Your task to perform on an android device: Open Youtube and go to "Your channel" Image 0: 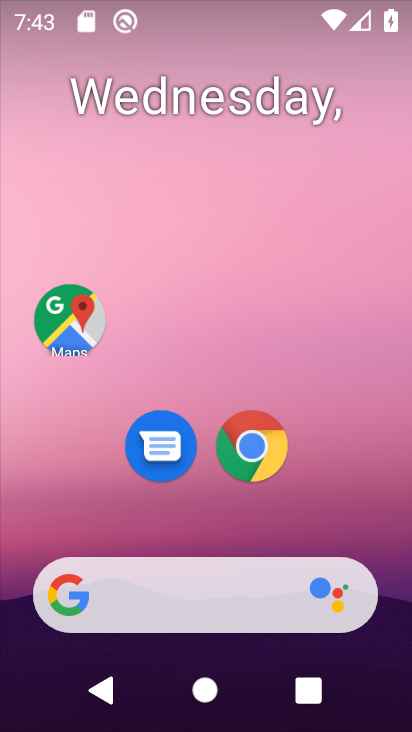
Step 0: press home button
Your task to perform on an android device: Open Youtube and go to "Your channel" Image 1: 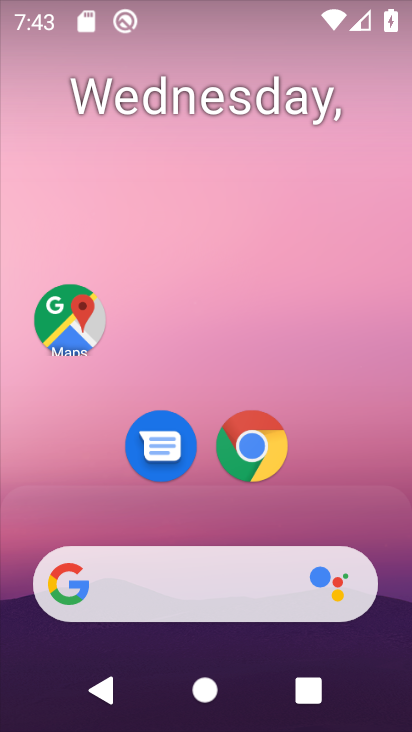
Step 1: drag from (205, 523) to (217, 30)
Your task to perform on an android device: Open Youtube and go to "Your channel" Image 2: 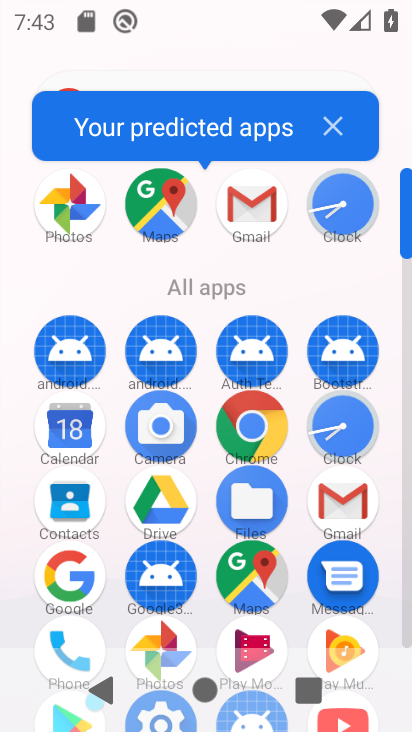
Step 2: drag from (209, 613) to (197, 129)
Your task to perform on an android device: Open Youtube and go to "Your channel" Image 3: 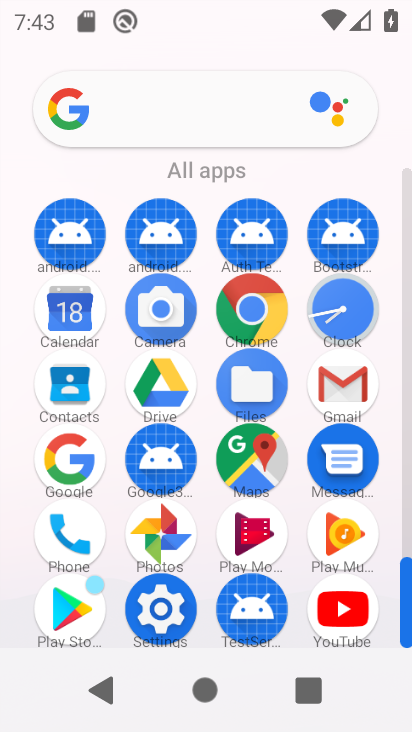
Step 3: click (341, 601)
Your task to perform on an android device: Open Youtube and go to "Your channel" Image 4: 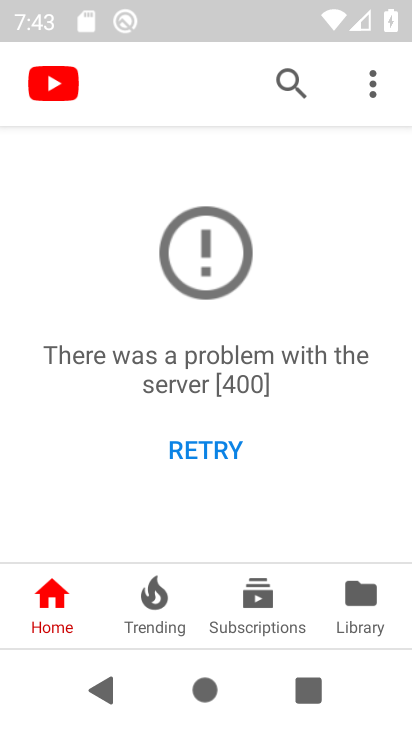
Step 4: click (371, 80)
Your task to perform on an android device: Open Youtube and go to "Your channel" Image 5: 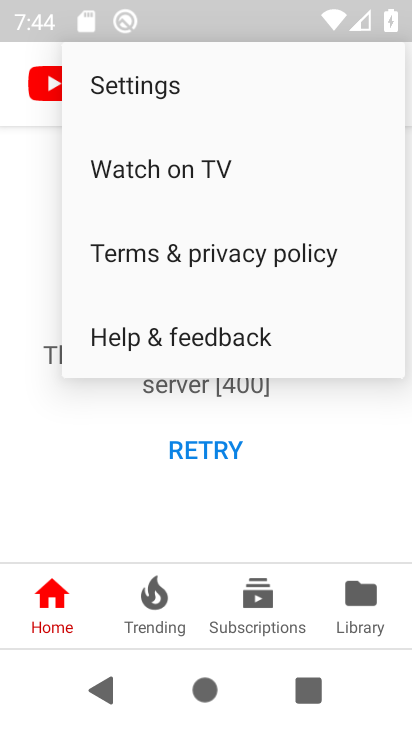
Step 5: click (175, 90)
Your task to perform on an android device: Open Youtube and go to "Your channel" Image 6: 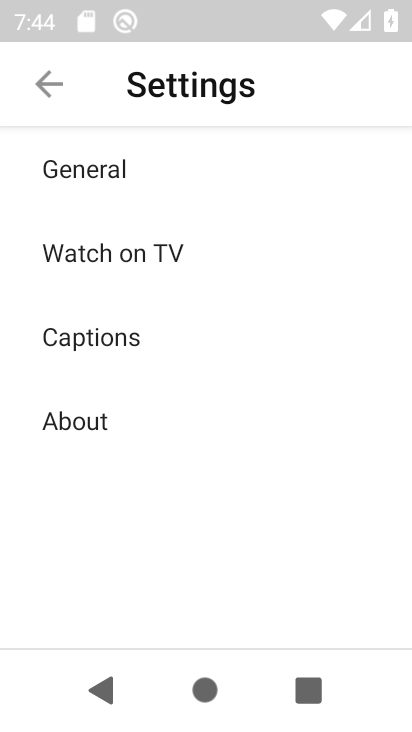
Step 6: press back button
Your task to perform on an android device: Open Youtube and go to "Your channel" Image 7: 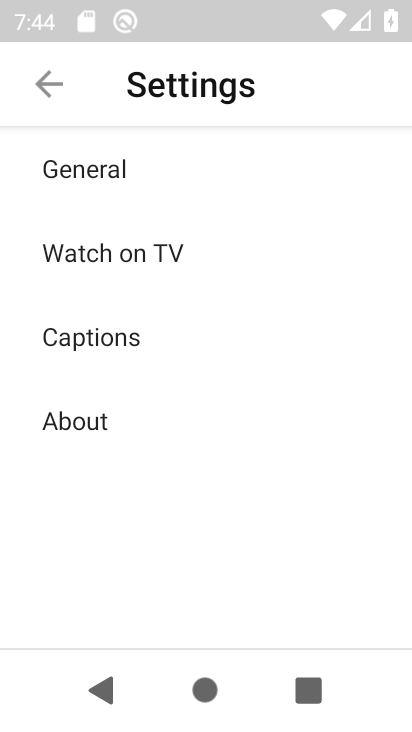
Step 7: press back button
Your task to perform on an android device: Open Youtube and go to "Your channel" Image 8: 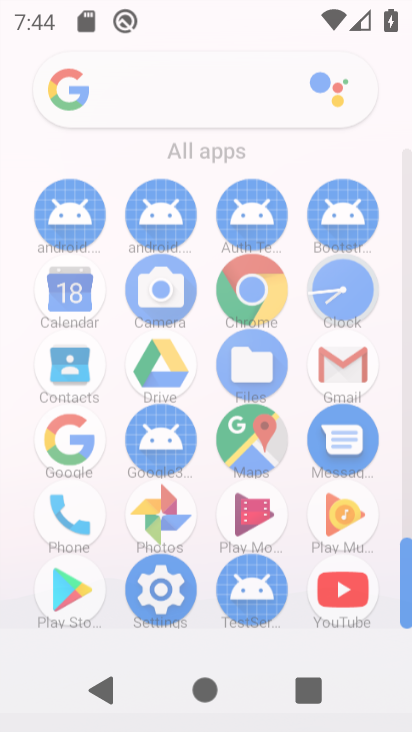
Step 8: click (371, 617)
Your task to perform on an android device: Open Youtube and go to "Your channel" Image 9: 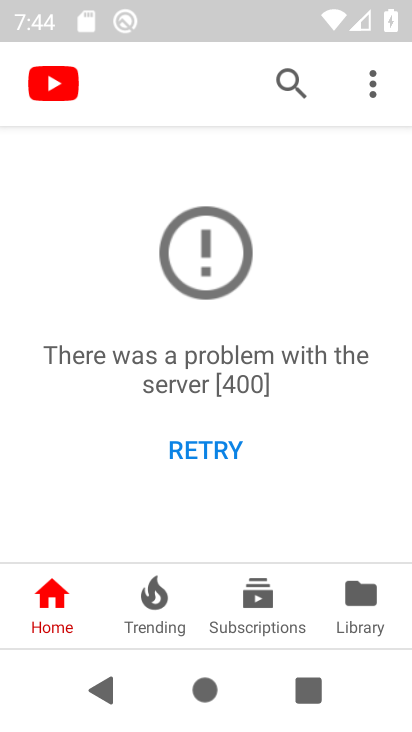
Step 9: click (353, 602)
Your task to perform on an android device: Open Youtube and go to "Your channel" Image 10: 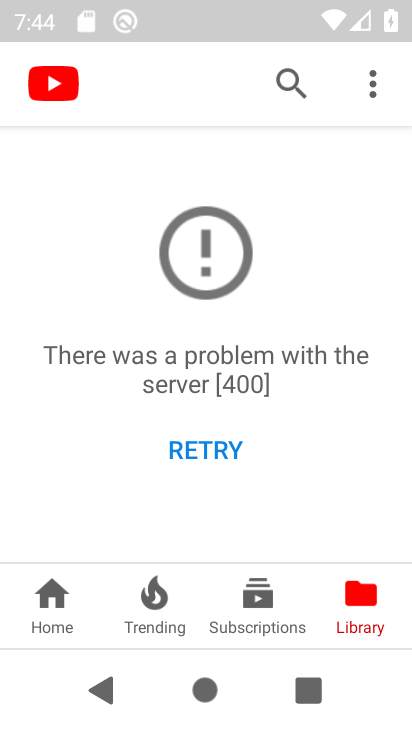
Step 10: task complete